Your task to perform on an android device: check the backup settings in the google photos Image 0: 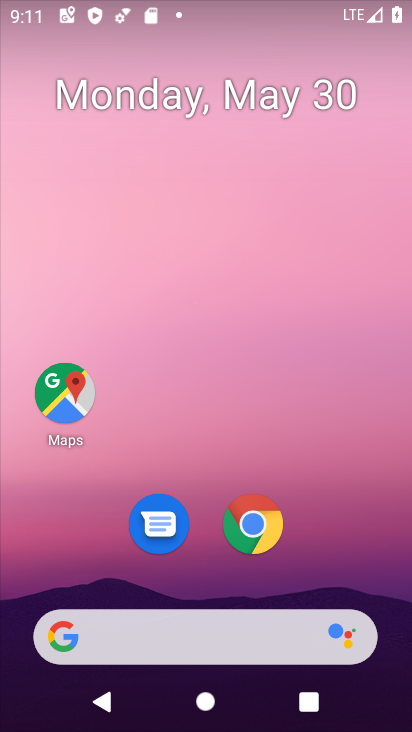
Step 0: drag from (331, 388) to (304, 145)
Your task to perform on an android device: check the backup settings in the google photos Image 1: 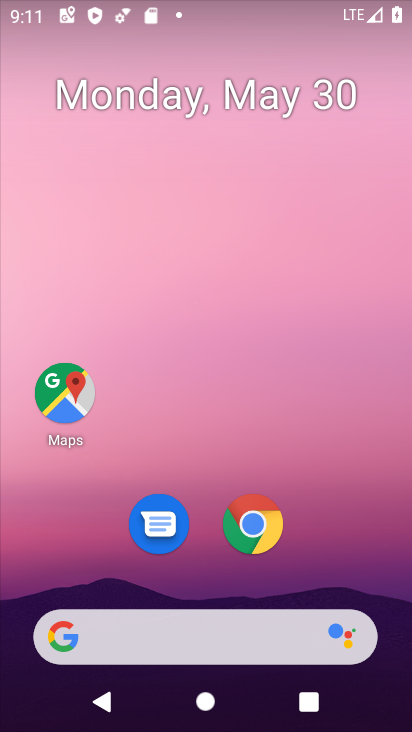
Step 1: drag from (294, 557) to (298, 58)
Your task to perform on an android device: check the backup settings in the google photos Image 2: 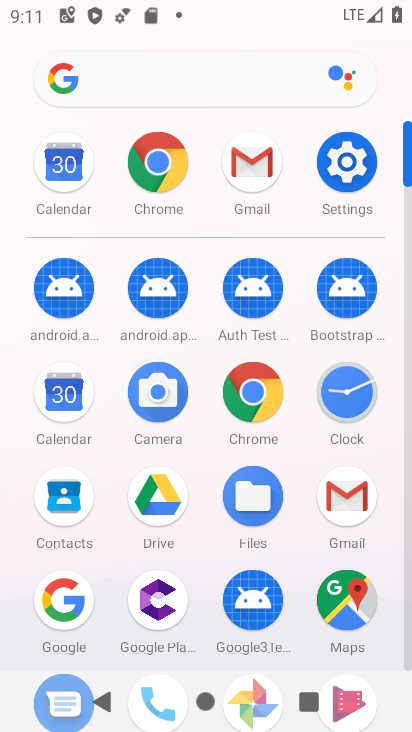
Step 2: drag from (215, 473) to (203, 168)
Your task to perform on an android device: check the backup settings in the google photos Image 3: 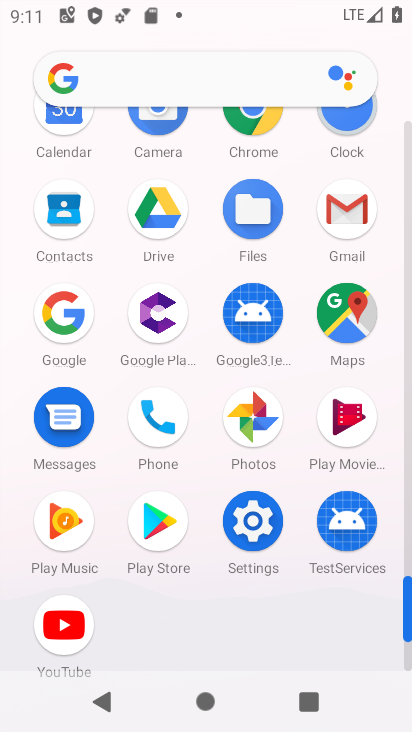
Step 3: click (238, 411)
Your task to perform on an android device: check the backup settings in the google photos Image 4: 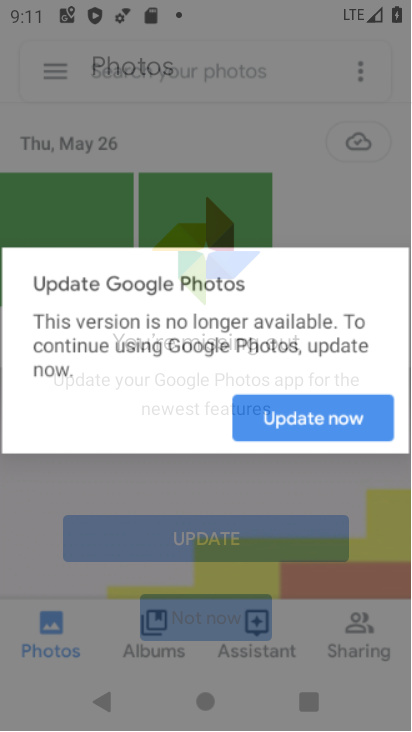
Step 4: click (283, 420)
Your task to perform on an android device: check the backup settings in the google photos Image 5: 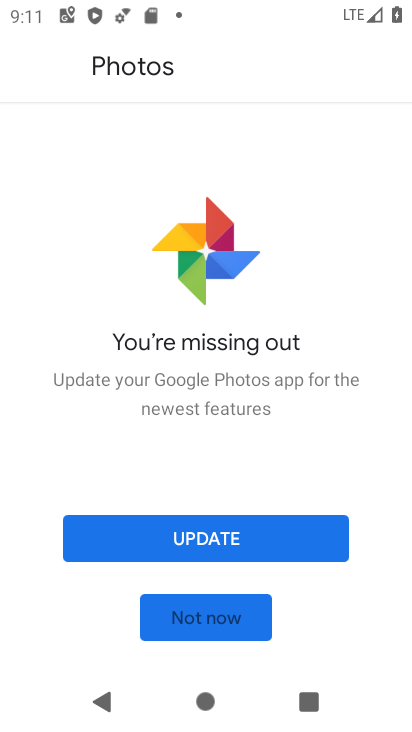
Step 5: click (235, 620)
Your task to perform on an android device: check the backup settings in the google photos Image 6: 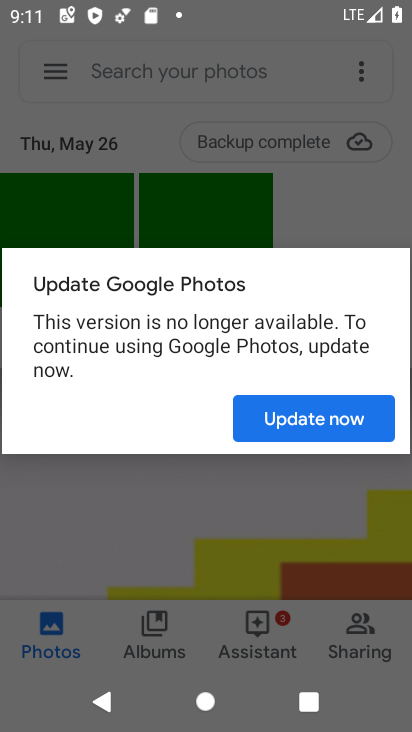
Step 6: click (296, 408)
Your task to perform on an android device: check the backup settings in the google photos Image 7: 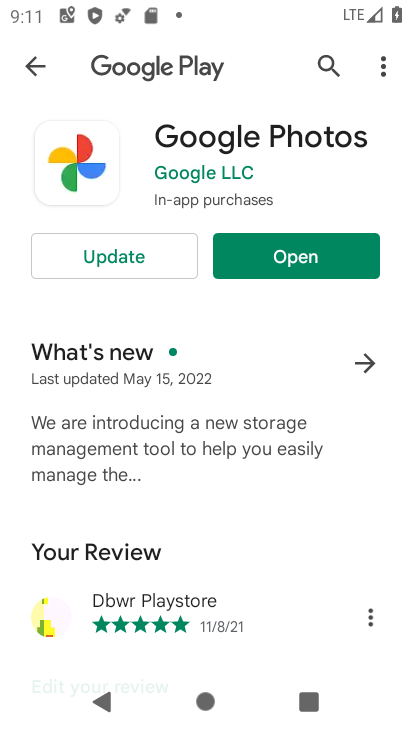
Step 7: click (323, 262)
Your task to perform on an android device: check the backup settings in the google photos Image 8: 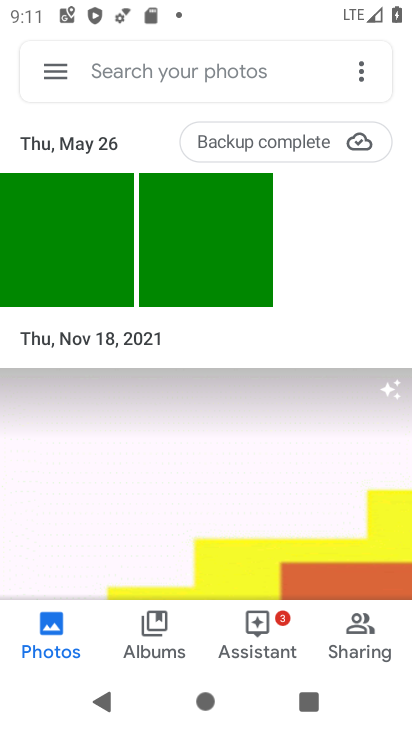
Step 8: click (51, 69)
Your task to perform on an android device: check the backup settings in the google photos Image 9: 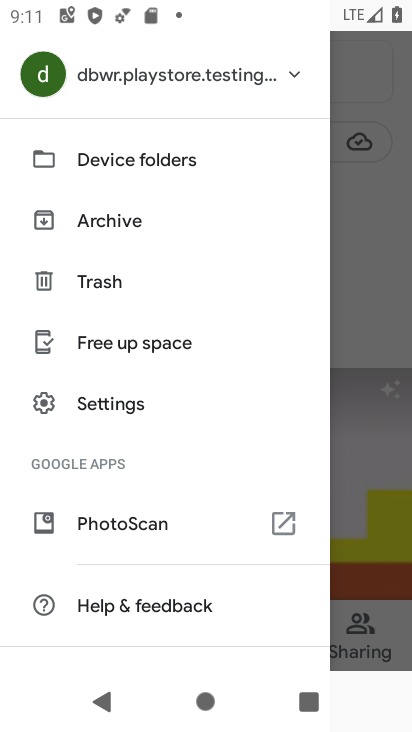
Step 9: click (133, 396)
Your task to perform on an android device: check the backup settings in the google photos Image 10: 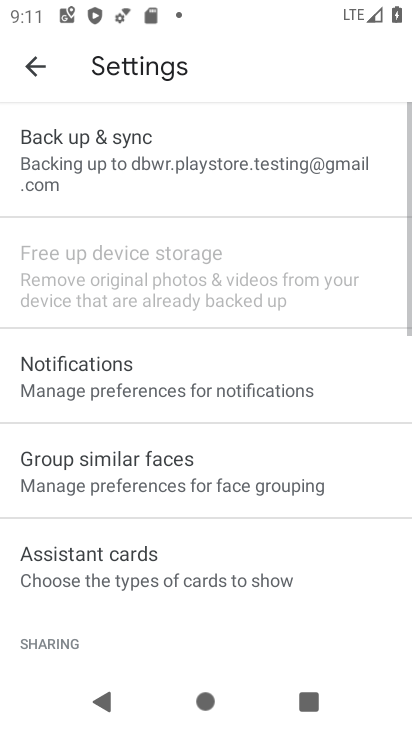
Step 10: click (163, 143)
Your task to perform on an android device: check the backup settings in the google photos Image 11: 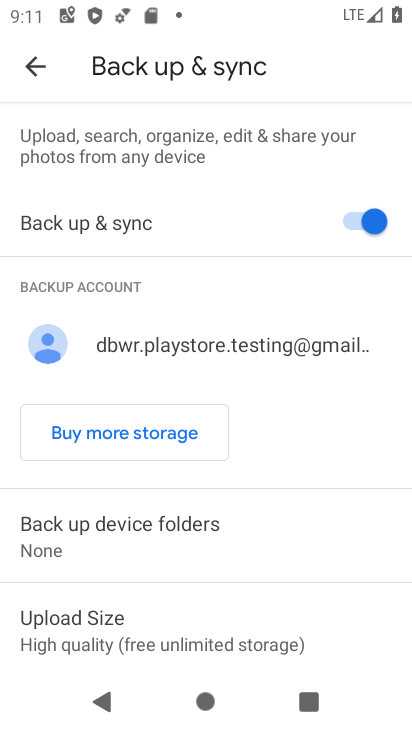
Step 11: task complete